Your task to perform on an android device: see tabs open on other devices in the chrome app Image 0: 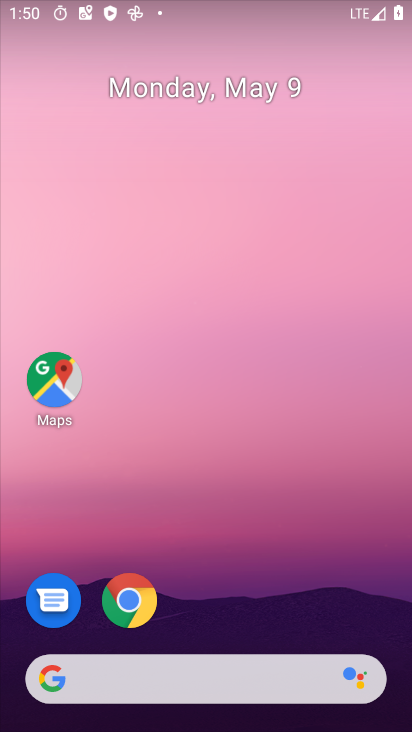
Step 0: drag from (270, 578) to (327, 240)
Your task to perform on an android device: see tabs open on other devices in the chrome app Image 1: 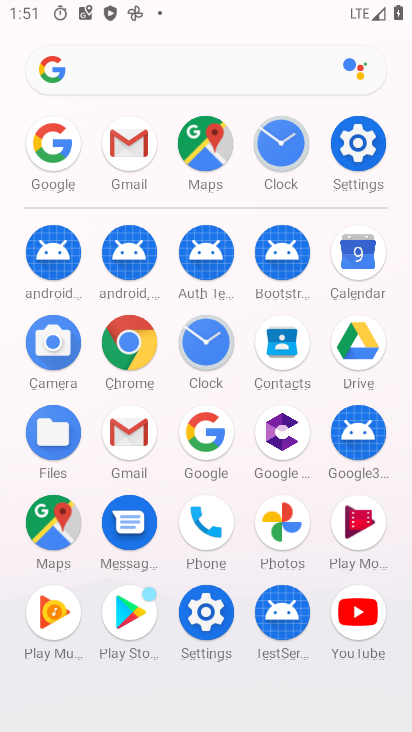
Step 1: click (138, 350)
Your task to perform on an android device: see tabs open on other devices in the chrome app Image 2: 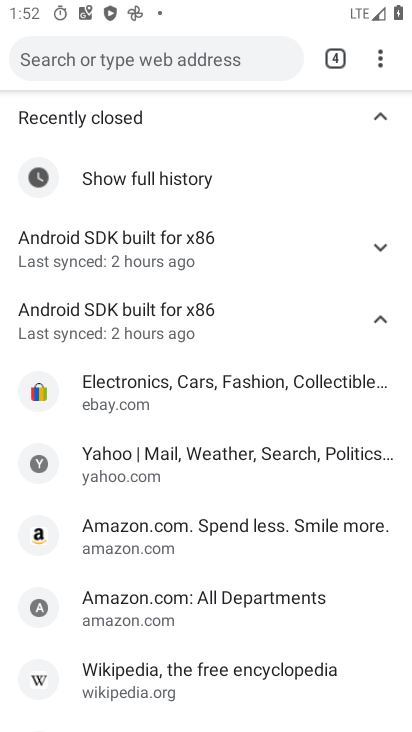
Step 2: task complete